Your task to perform on an android device: Go to eBay Image 0: 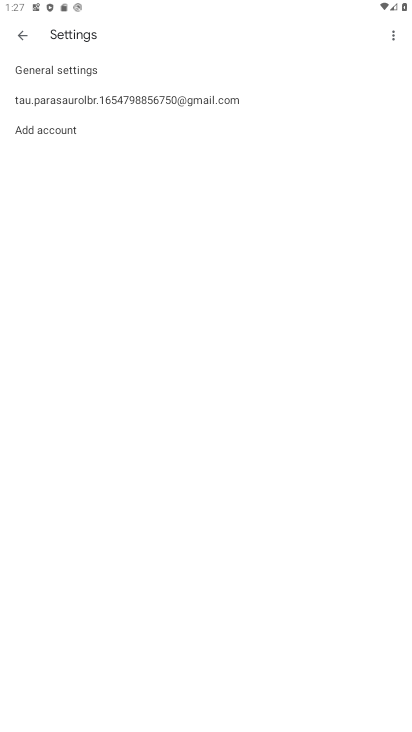
Step 0: press home button
Your task to perform on an android device: Go to eBay Image 1: 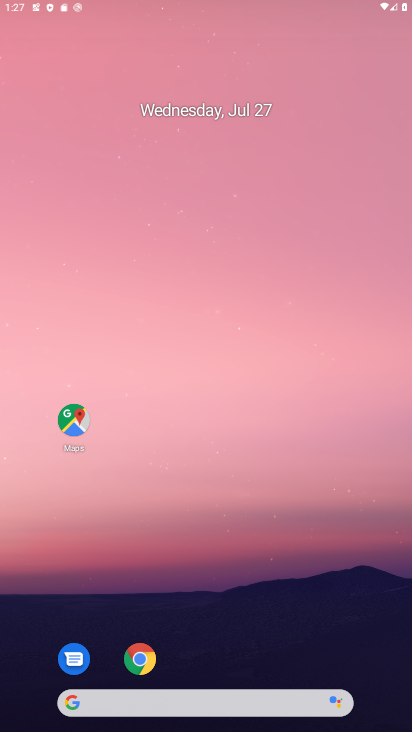
Step 1: drag from (314, 669) to (185, 73)
Your task to perform on an android device: Go to eBay Image 2: 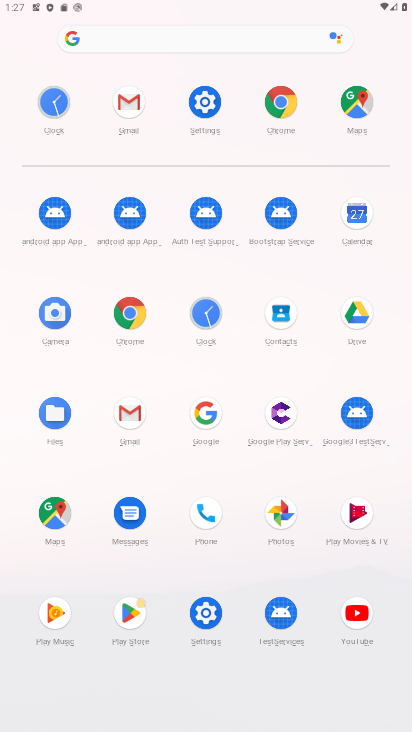
Step 2: click (284, 94)
Your task to perform on an android device: Go to eBay Image 3: 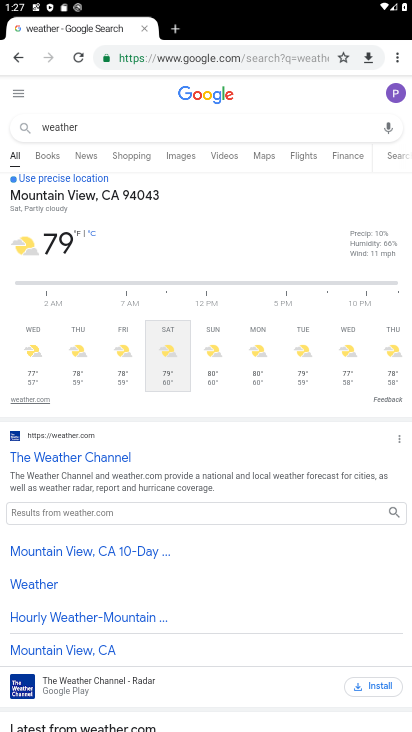
Step 3: click (242, 62)
Your task to perform on an android device: Go to eBay Image 4: 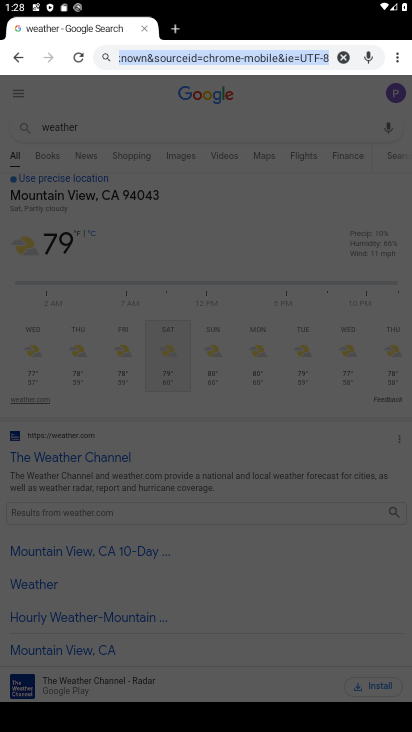
Step 4: type "ebay"
Your task to perform on an android device: Go to eBay Image 5: 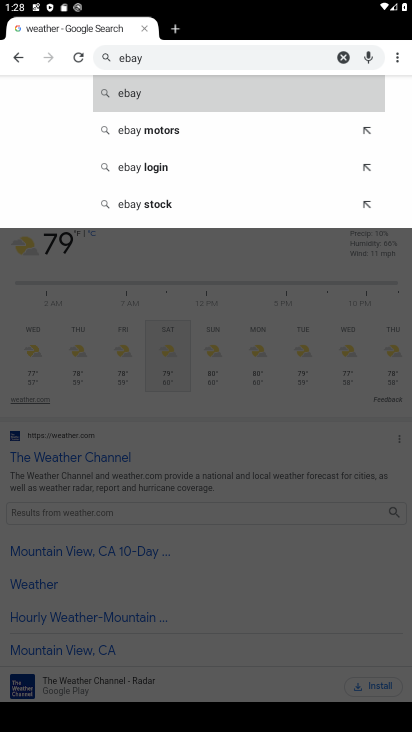
Step 5: click (153, 97)
Your task to perform on an android device: Go to eBay Image 6: 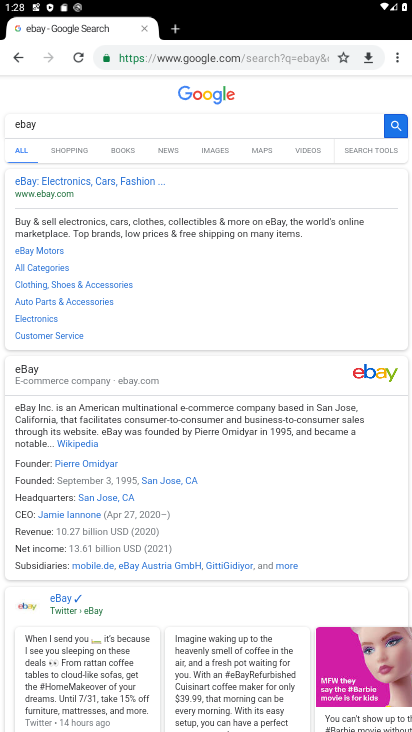
Step 6: click (72, 184)
Your task to perform on an android device: Go to eBay Image 7: 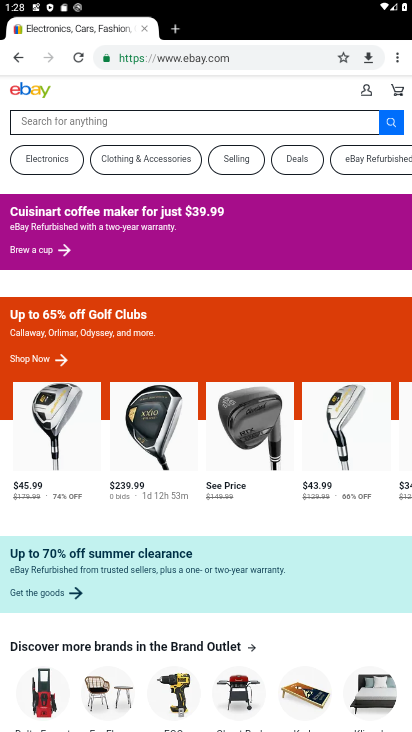
Step 7: task complete